Your task to perform on an android device: Open the phone app and click the voicemail tab. Image 0: 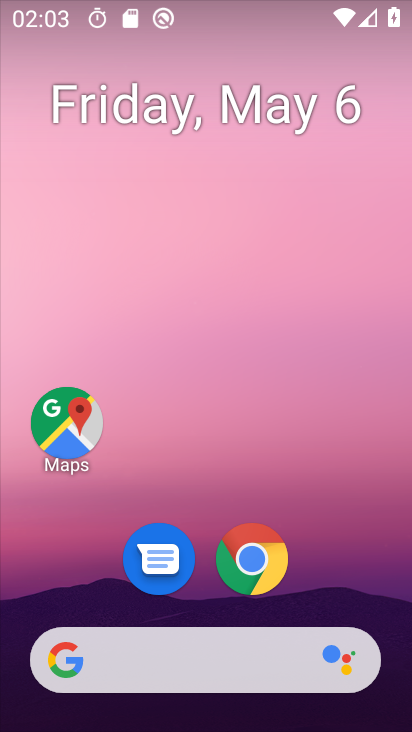
Step 0: drag from (289, 626) to (270, 31)
Your task to perform on an android device: Open the phone app and click the voicemail tab. Image 1: 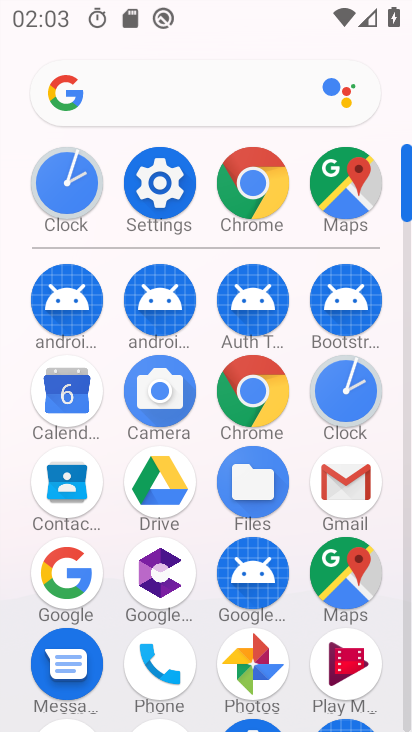
Step 1: click (175, 669)
Your task to perform on an android device: Open the phone app and click the voicemail tab. Image 2: 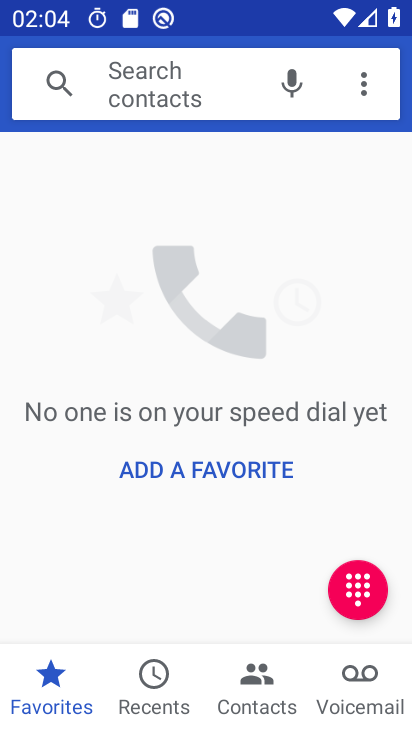
Step 2: click (353, 690)
Your task to perform on an android device: Open the phone app and click the voicemail tab. Image 3: 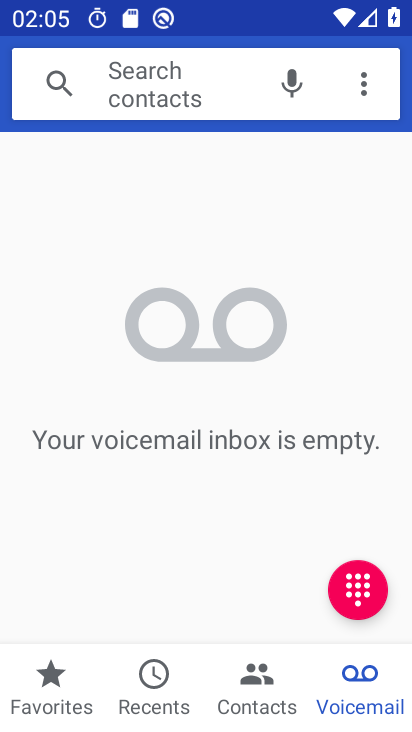
Step 3: task complete